Your task to perform on an android device: Go to Google Image 0: 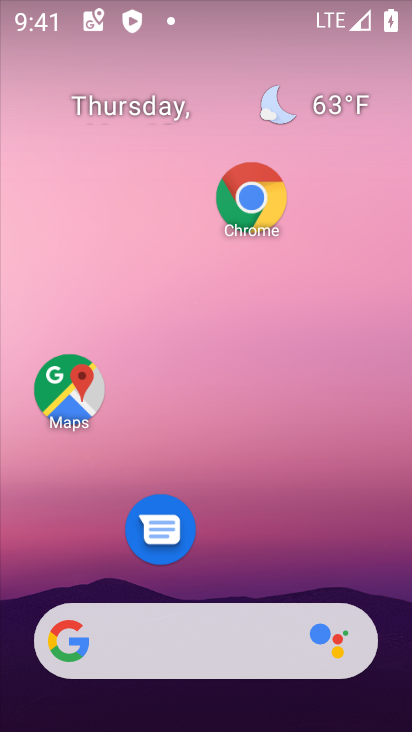
Step 0: drag from (259, 675) to (271, 309)
Your task to perform on an android device: Go to Google Image 1: 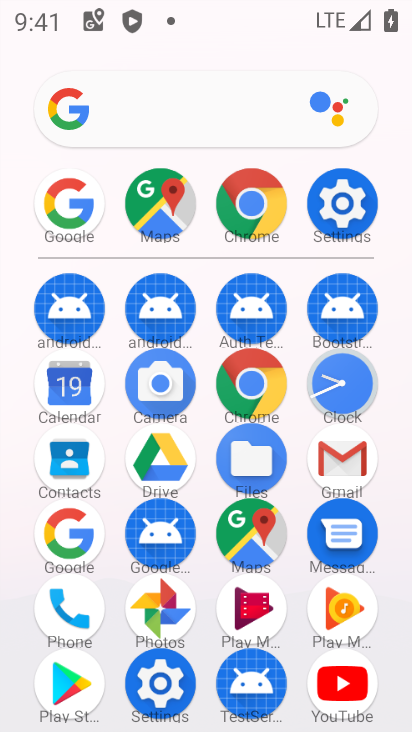
Step 1: drag from (246, 483) to (265, 346)
Your task to perform on an android device: Go to Google Image 2: 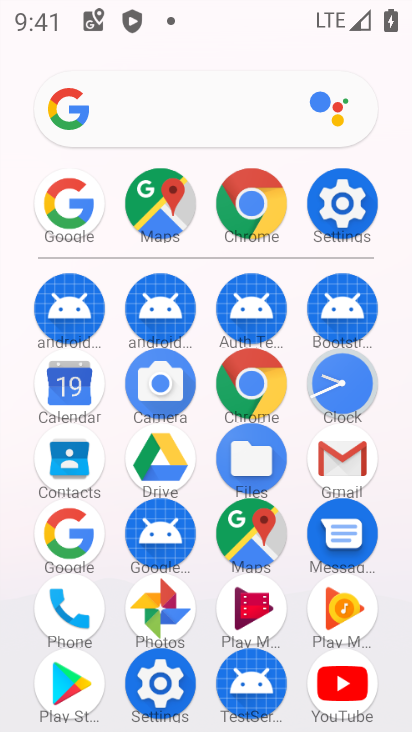
Step 2: click (51, 549)
Your task to perform on an android device: Go to Google Image 3: 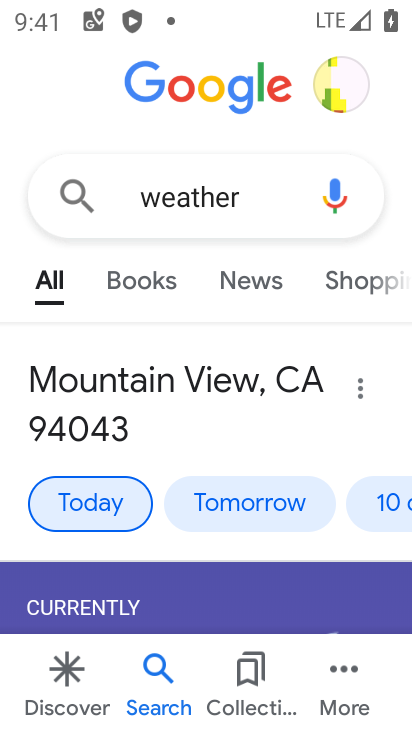
Step 3: task complete